Your task to perform on an android device: open app "The Home Depot" (install if not already installed), go to login, and select forgot password Image 0: 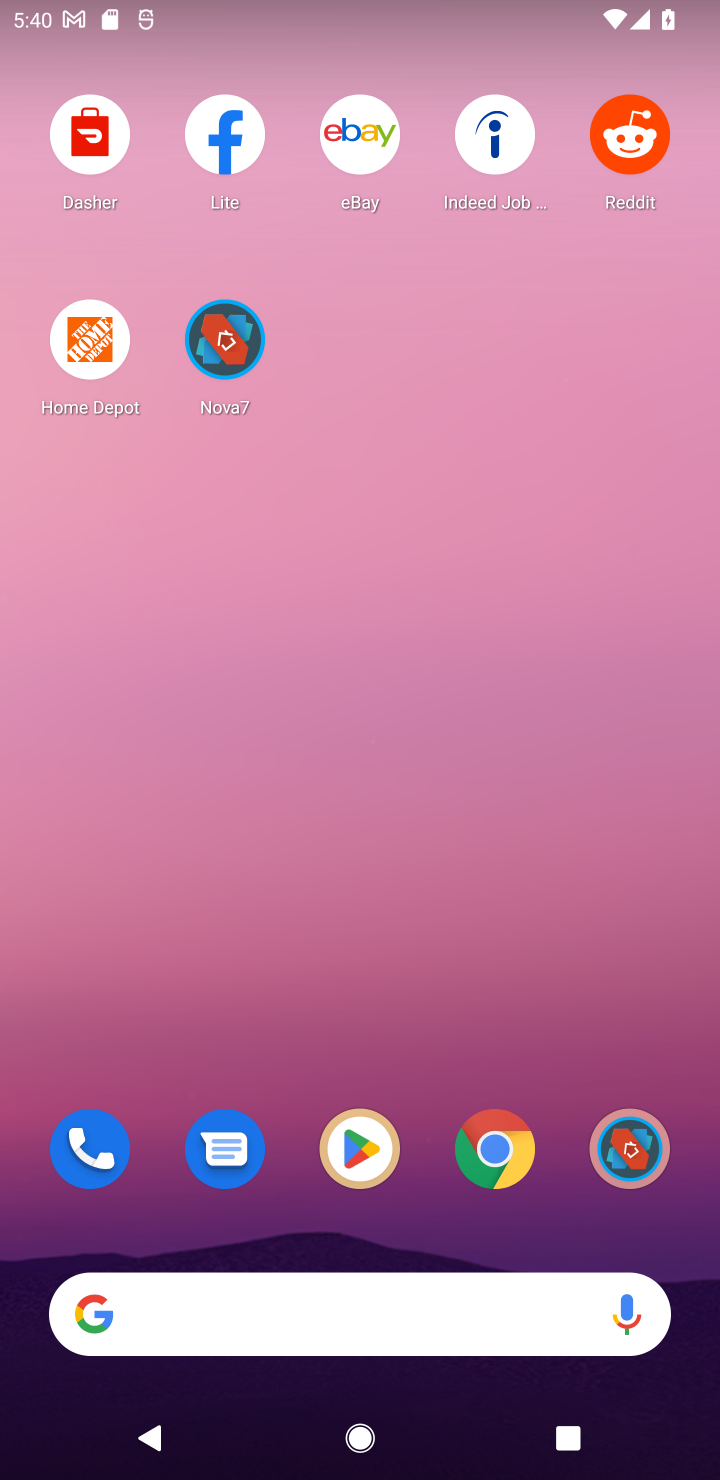
Step 0: press home button
Your task to perform on an android device: open app "The Home Depot" (install if not already installed), go to login, and select forgot password Image 1: 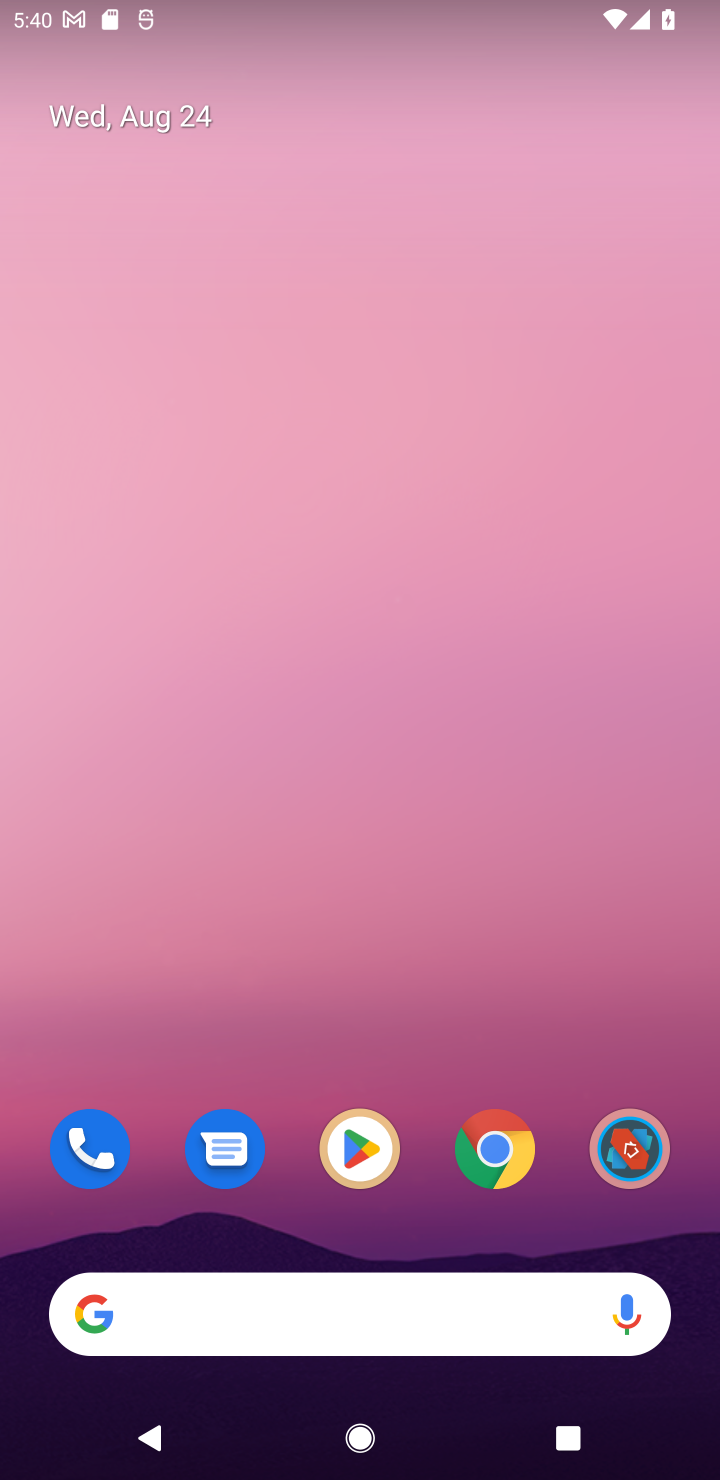
Step 1: click (365, 1143)
Your task to perform on an android device: open app "The Home Depot" (install if not already installed), go to login, and select forgot password Image 2: 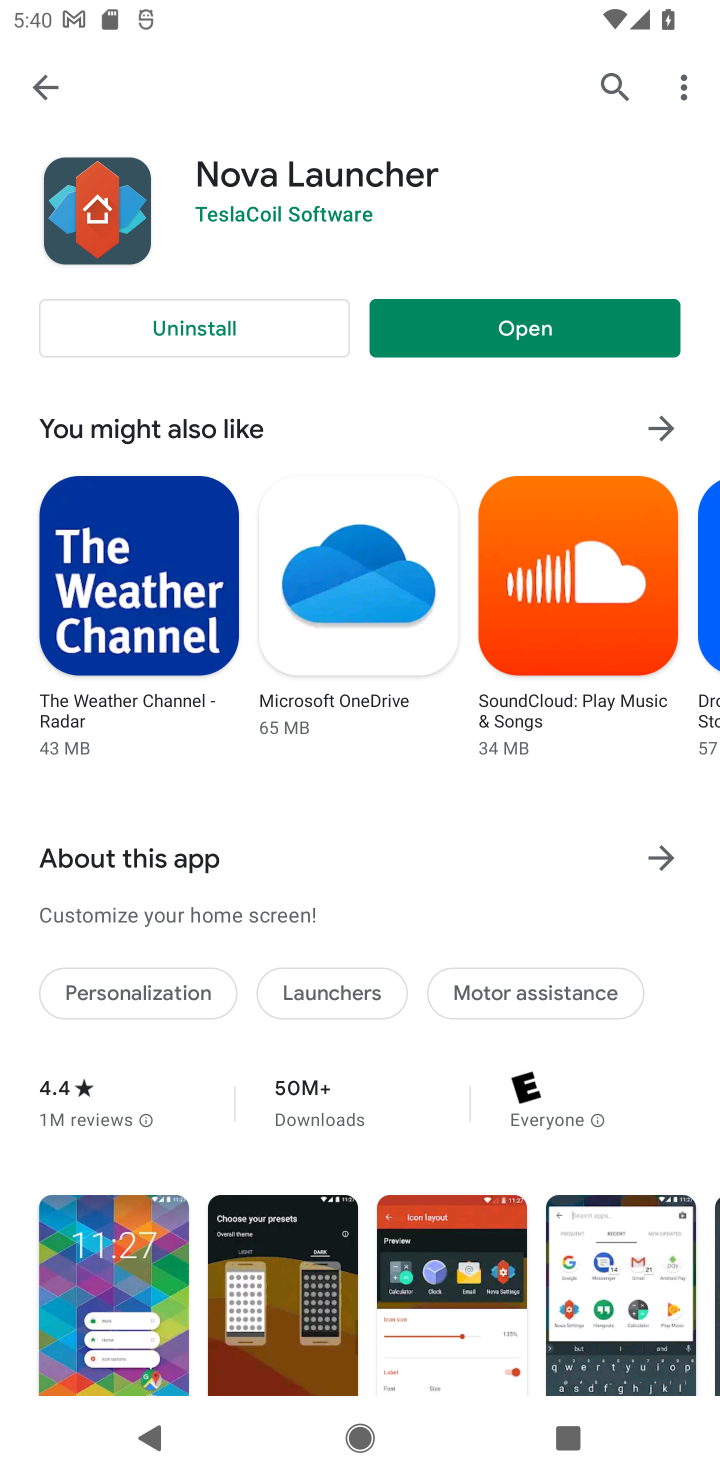
Step 2: click (599, 83)
Your task to perform on an android device: open app "The Home Depot" (install if not already installed), go to login, and select forgot password Image 3: 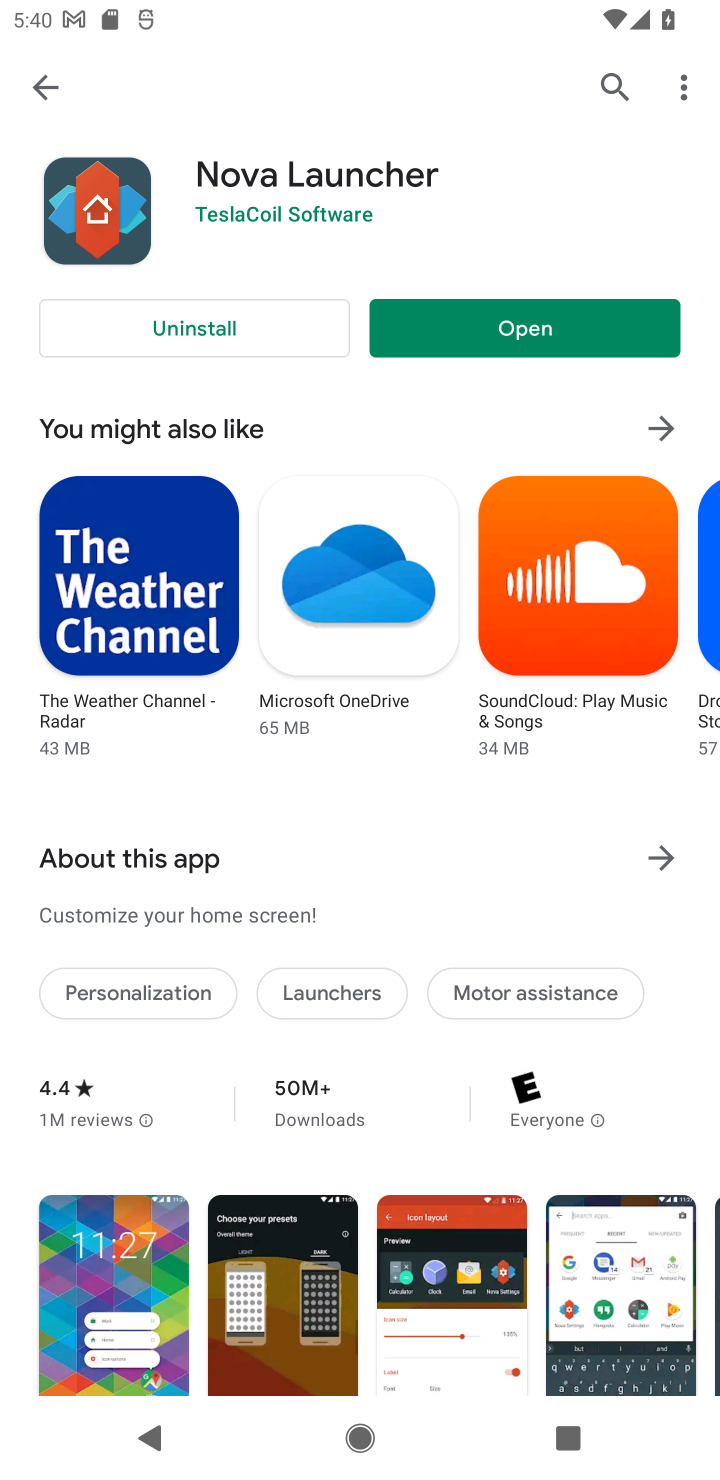
Step 3: click (587, 76)
Your task to perform on an android device: open app "The Home Depot" (install if not already installed), go to login, and select forgot password Image 4: 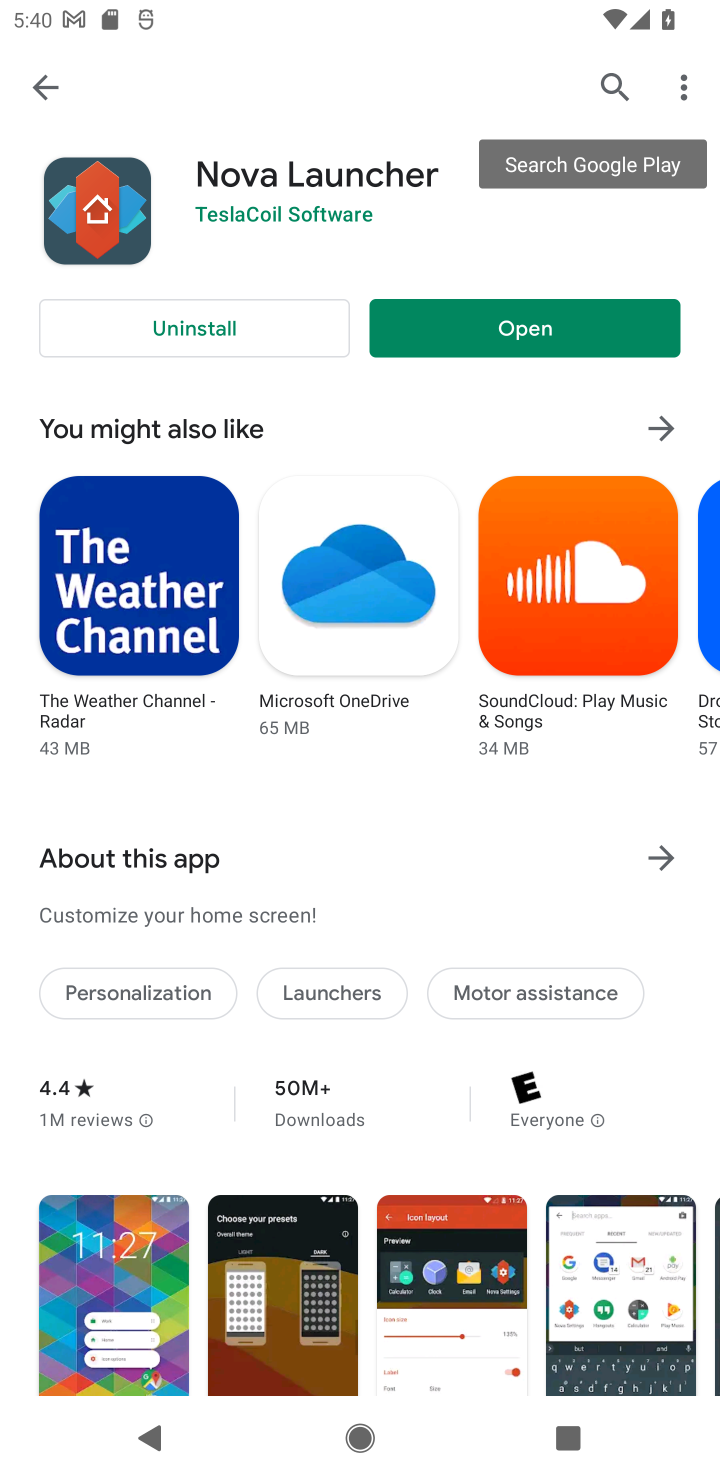
Step 4: click (620, 74)
Your task to perform on an android device: open app "The Home Depot" (install if not already installed), go to login, and select forgot password Image 5: 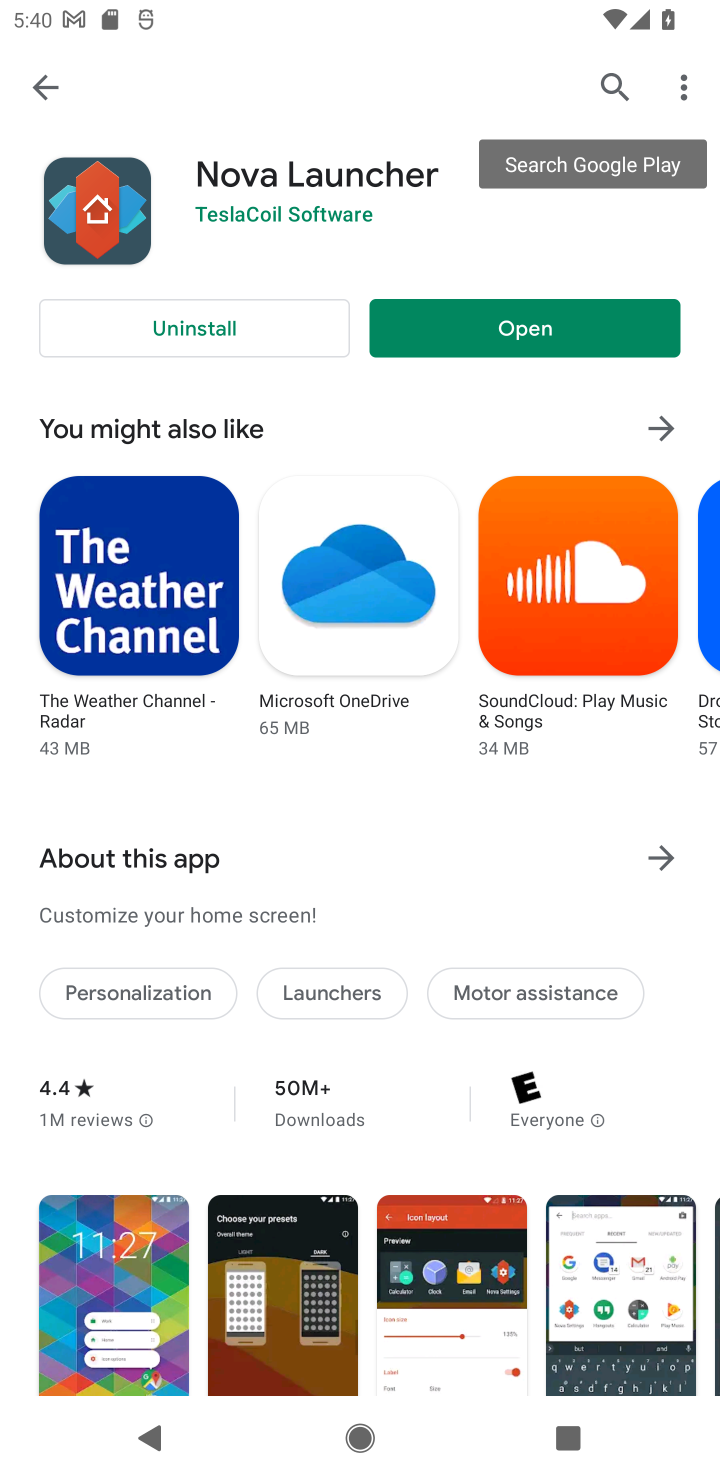
Step 5: click (609, 84)
Your task to perform on an android device: open app "The Home Depot" (install if not already installed), go to login, and select forgot password Image 6: 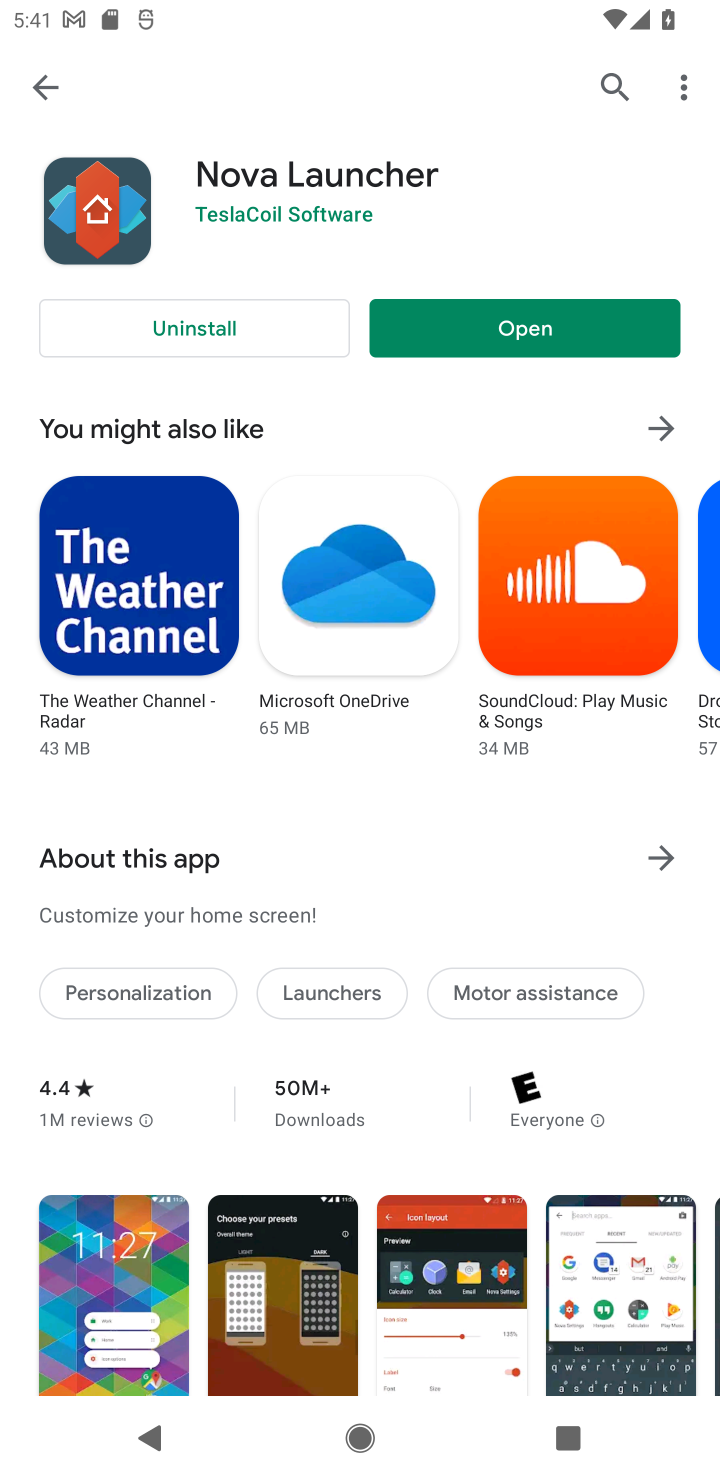
Step 6: click (507, 93)
Your task to perform on an android device: open app "The Home Depot" (install if not already installed), go to login, and select forgot password Image 7: 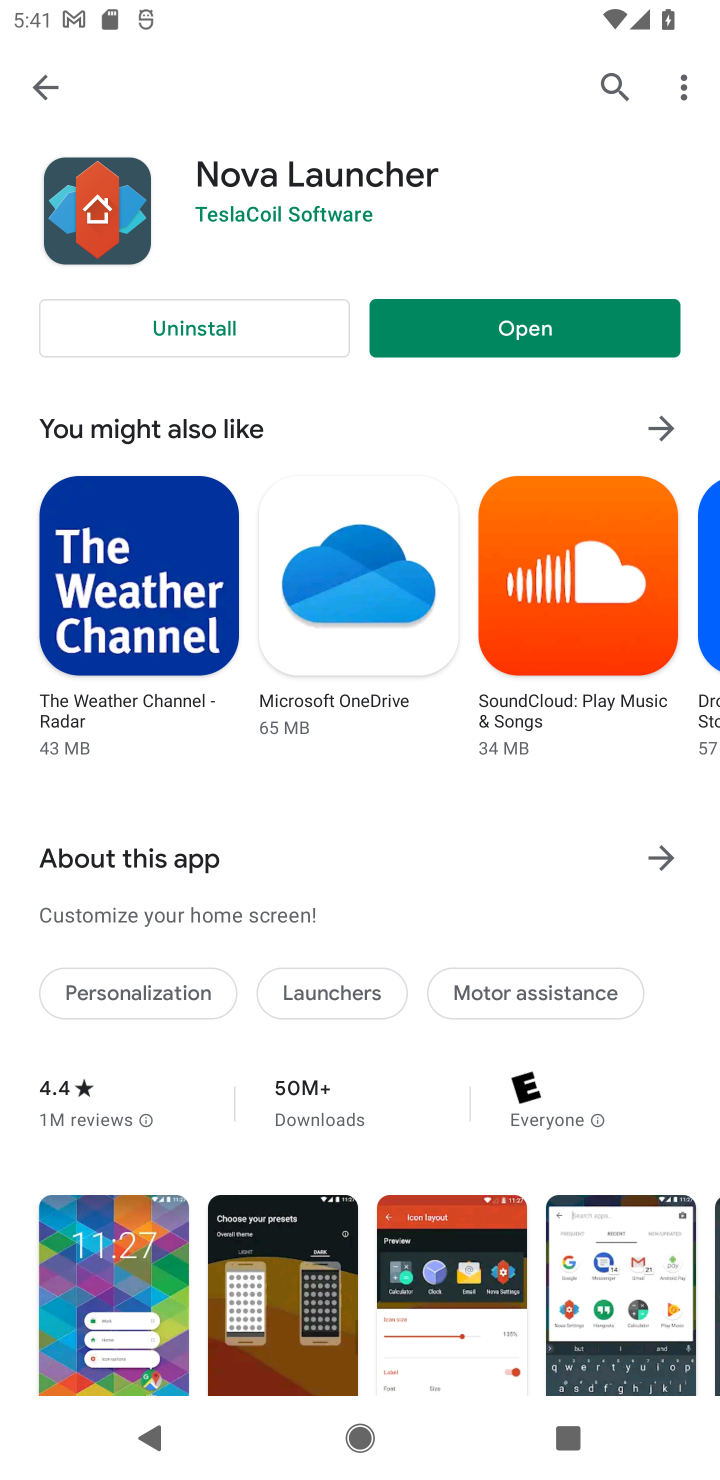
Step 7: click (593, 71)
Your task to perform on an android device: open app "The Home Depot" (install if not already installed), go to login, and select forgot password Image 8: 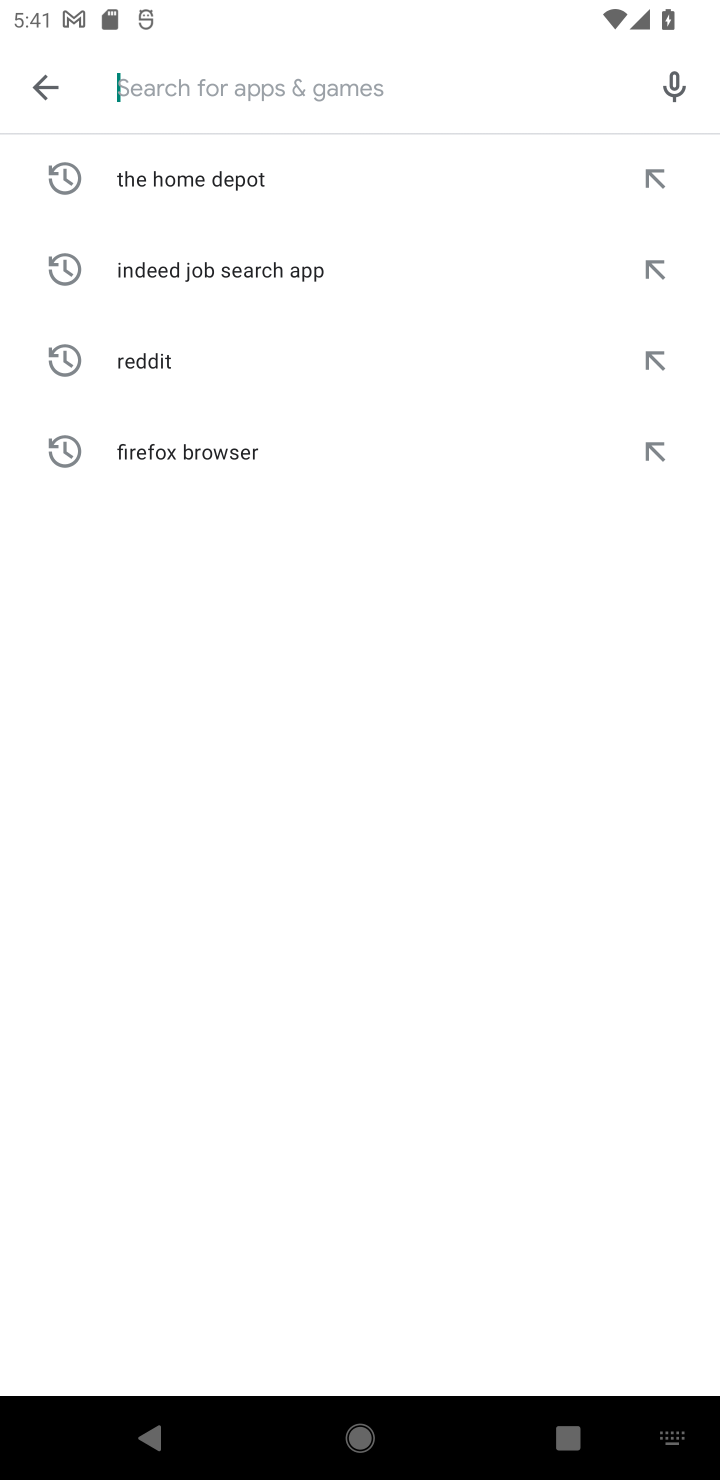
Step 8: type "The Home Depot"
Your task to perform on an android device: open app "The Home Depot" (install if not already installed), go to login, and select forgot password Image 9: 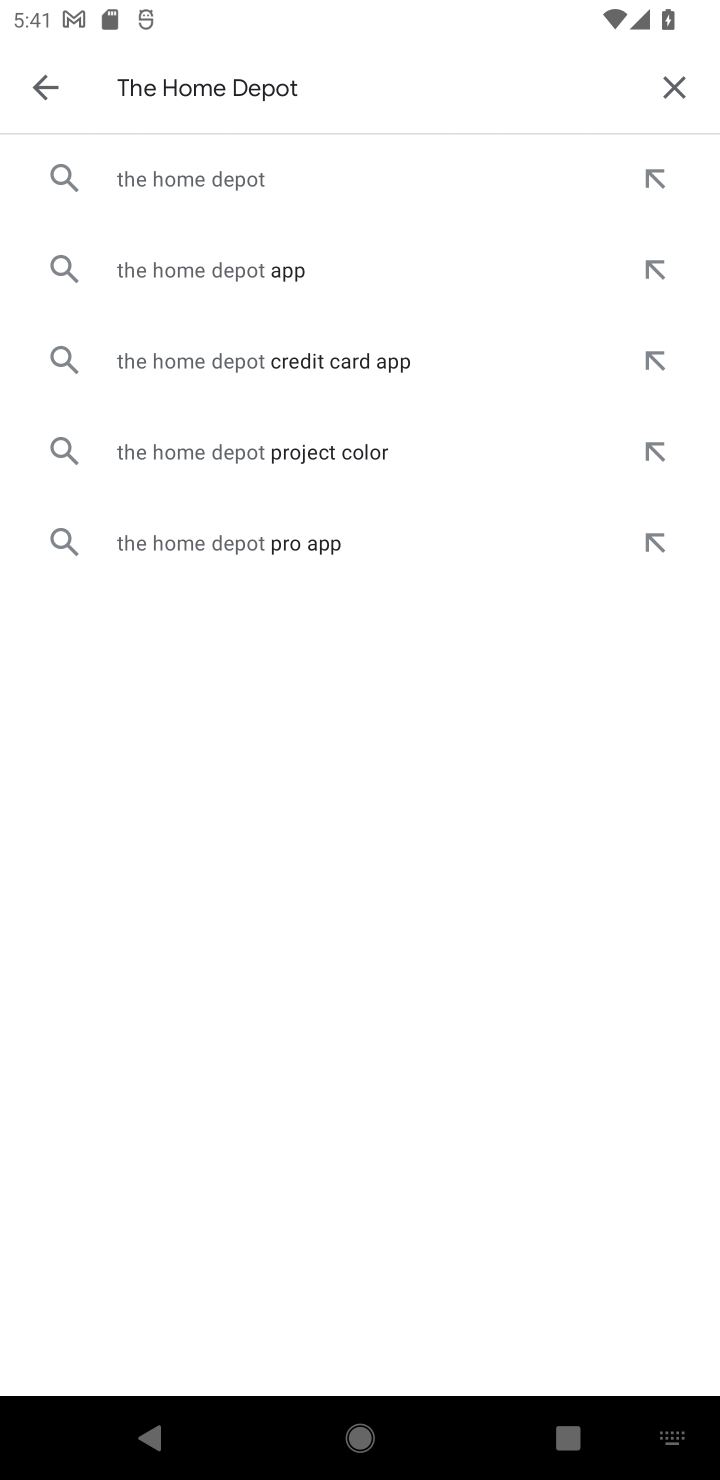
Step 9: click (225, 186)
Your task to perform on an android device: open app "The Home Depot" (install if not already installed), go to login, and select forgot password Image 10: 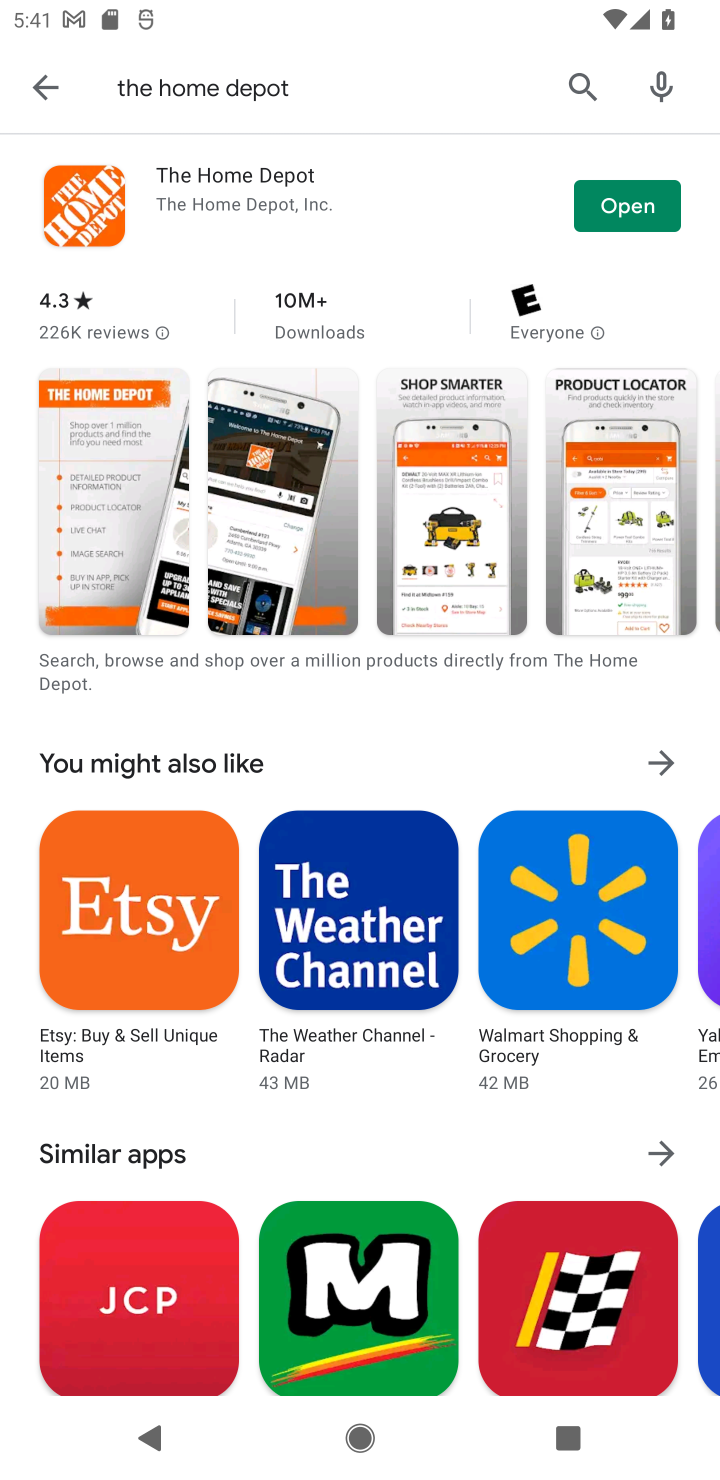
Step 10: click (632, 207)
Your task to perform on an android device: open app "The Home Depot" (install if not already installed), go to login, and select forgot password Image 11: 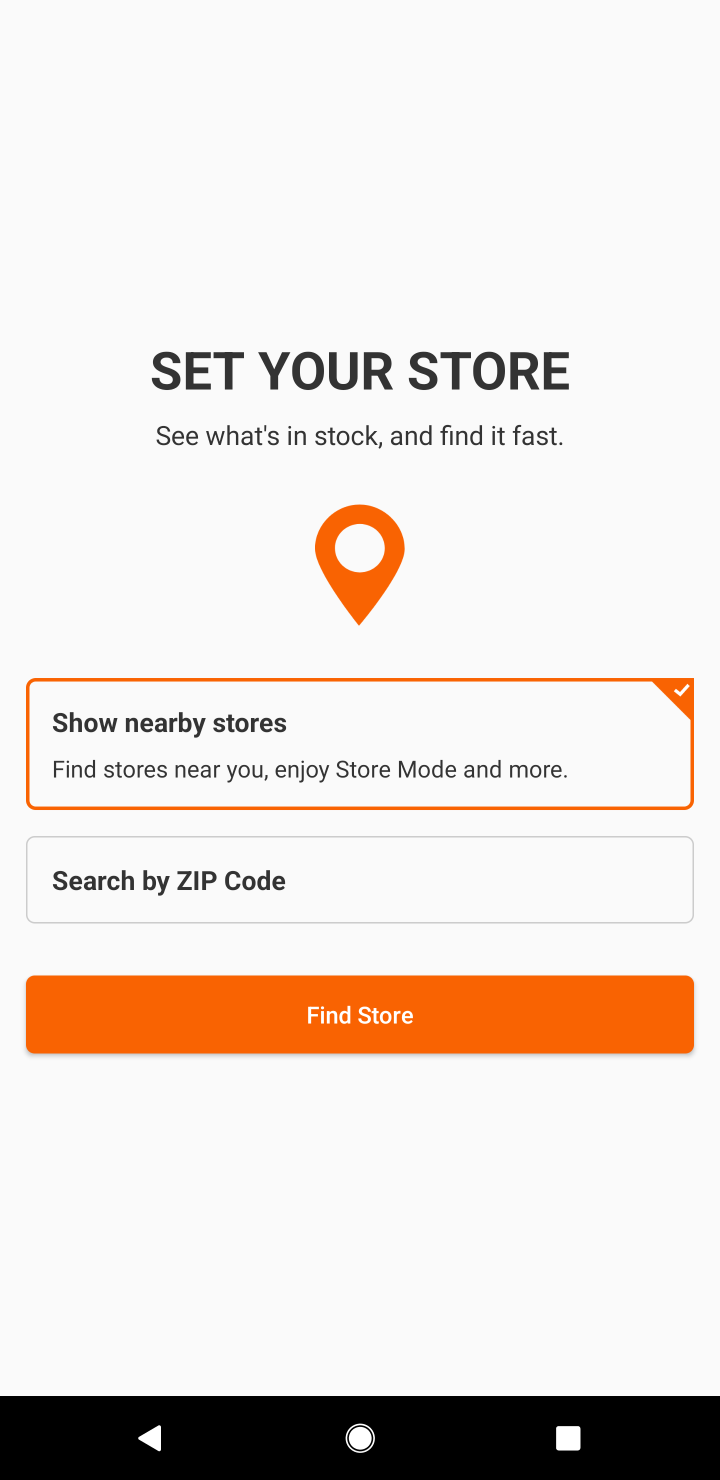
Step 11: task complete